Your task to perform on an android device: open app "Cash App" (install if not already installed) Image 0: 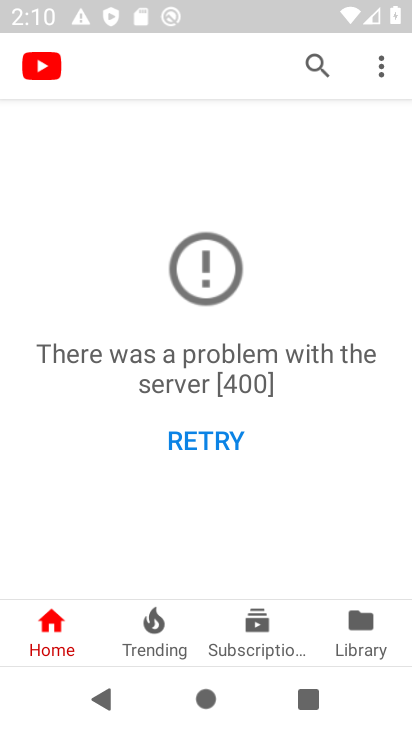
Step 0: press home button
Your task to perform on an android device: open app "Cash App" (install if not already installed) Image 1: 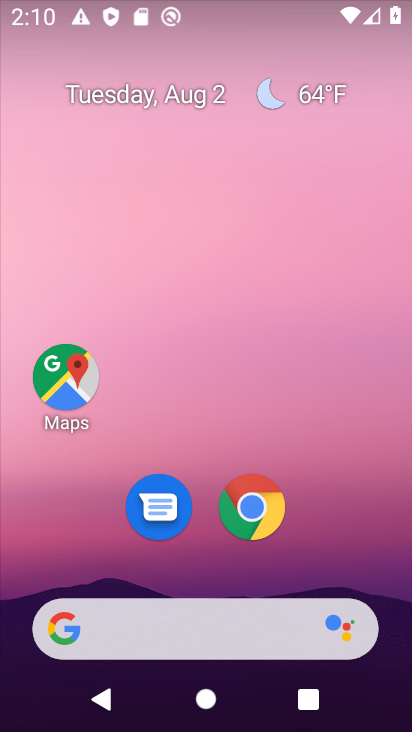
Step 1: drag from (233, 386) to (280, 92)
Your task to perform on an android device: open app "Cash App" (install if not already installed) Image 2: 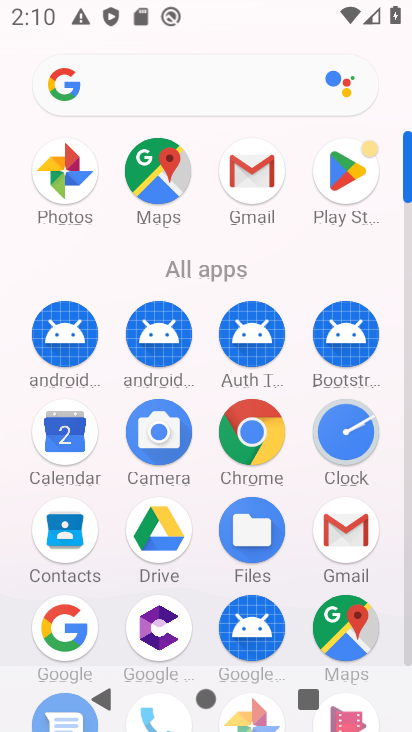
Step 2: click (346, 189)
Your task to perform on an android device: open app "Cash App" (install if not already installed) Image 3: 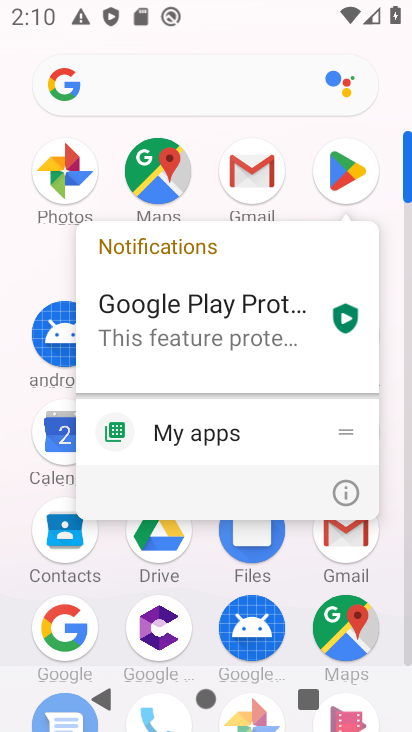
Step 3: click (336, 177)
Your task to perform on an android device: open app "Cash App" (install if not already installed) Image 4: 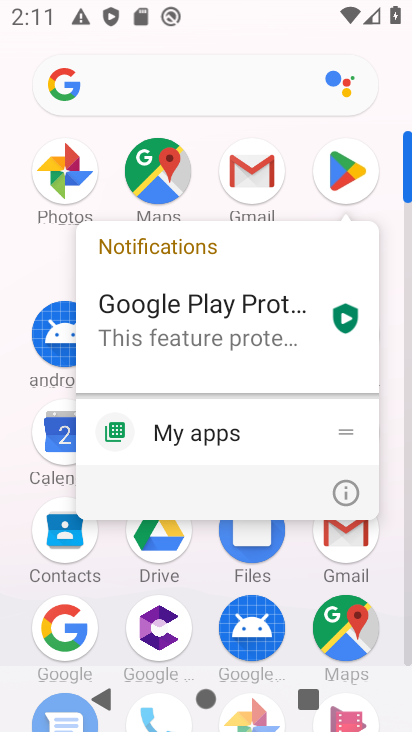
Step 4: click (340, 174)
Your task to perform on an android device: open app "Cash App" (install if not already installed) Image 5: 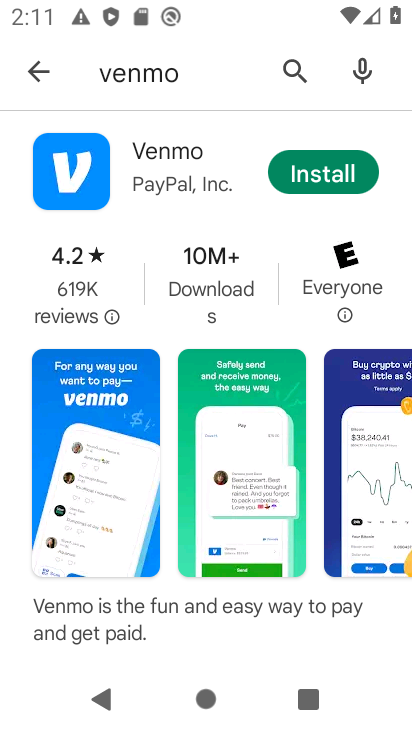
Step 5: click (136, 72)
Your task to perform on an android device: open app "Cash App" (install if not already installed) Image 6: 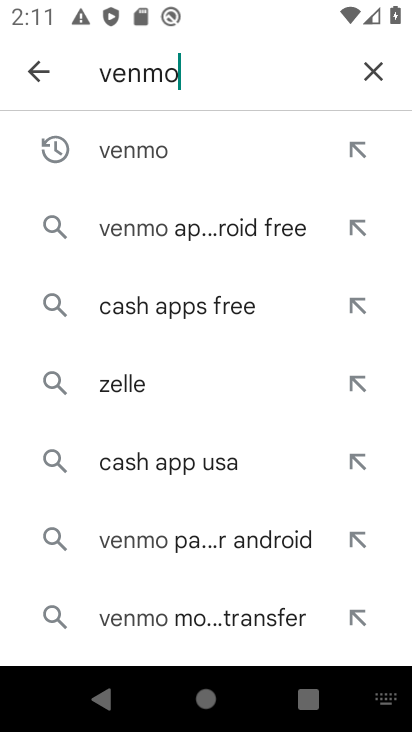
Step 6: click (367, 70)
Your task to perform on an android device: open app "Cash App" (install if not already installed) Image 7: 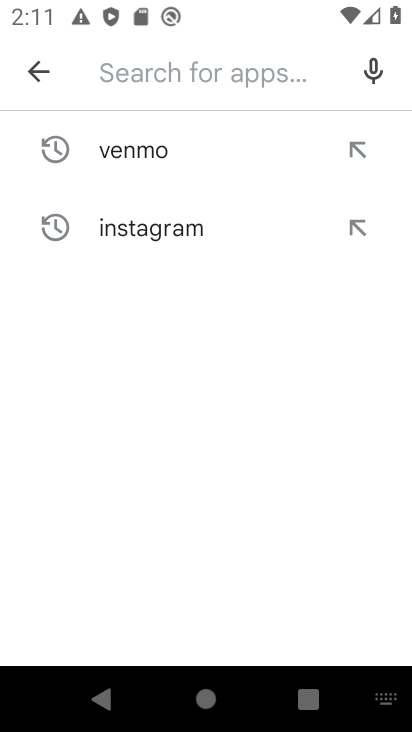
Step 7: type "CashApp"
Your task to perform on an android device: open app "Cash App" (install if not already installed) Image 8: 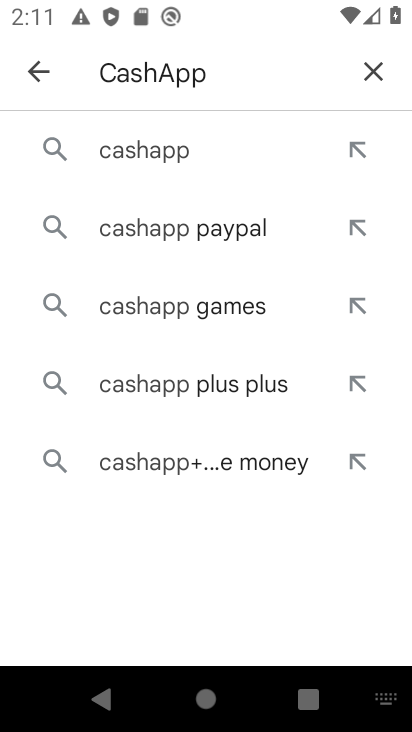
Step 8: click (137, 125)
Your task to perform on an android device: open app "Cash App" (install if not already installed) Image 9: 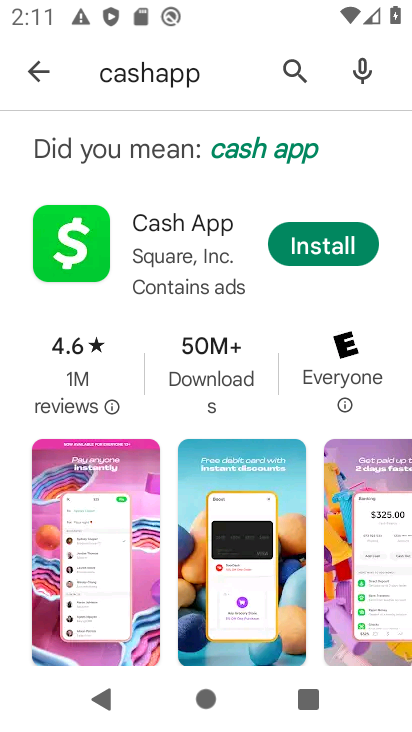
Step 9: click (321, 253)
Your task to perform on an android device: open app "Cash App" (install if not already installed) Image 10: 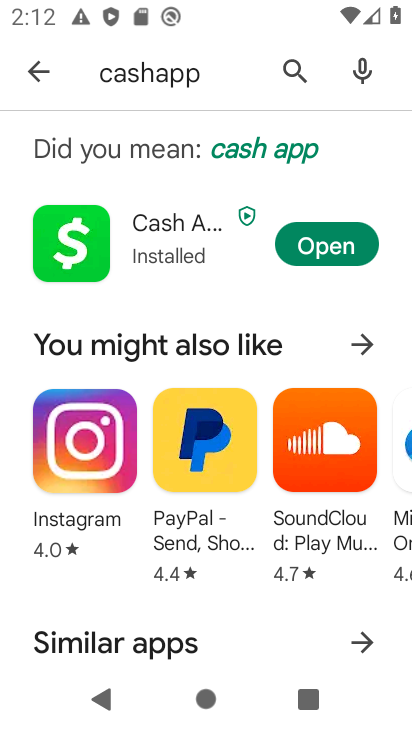
Step 10: click (323, 254)
Your task to perform on an android device: open app "Cash App" (install if not already installed) Image 11: 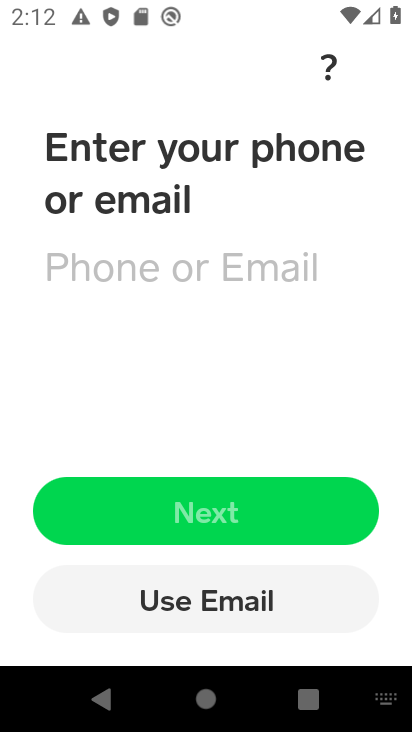
Step 11: task complete